Your task to perform on an android device: set the stopwatch Image 0: 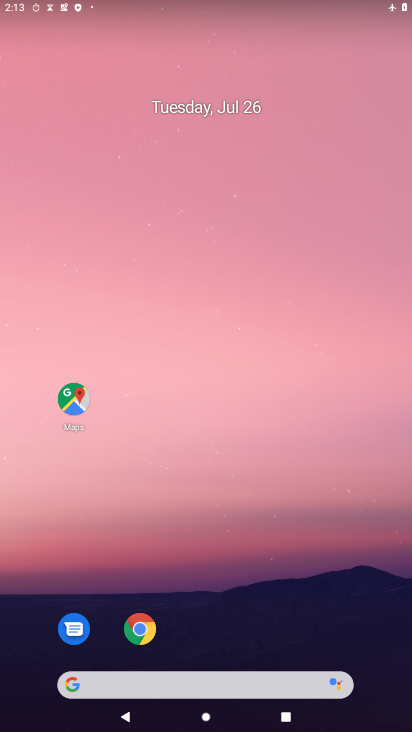
Step 0: drag from (174, 684) to (261, 70)
Your task to perform on an android device: set the stopwatch Image 1: 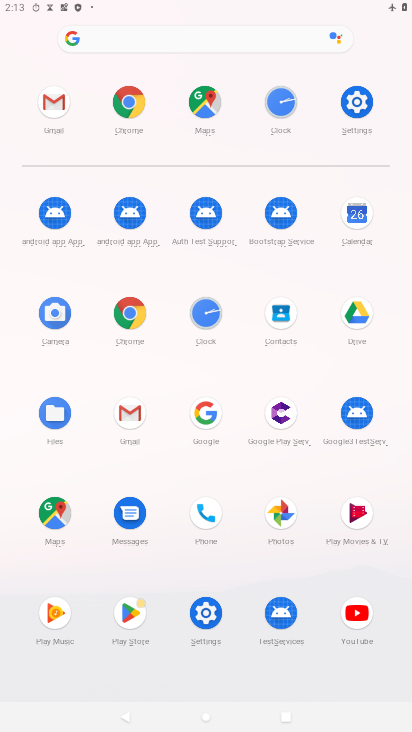
Step 1: click (215, 306)
Your task to perform on an android device: set the stopwatch Image 2: 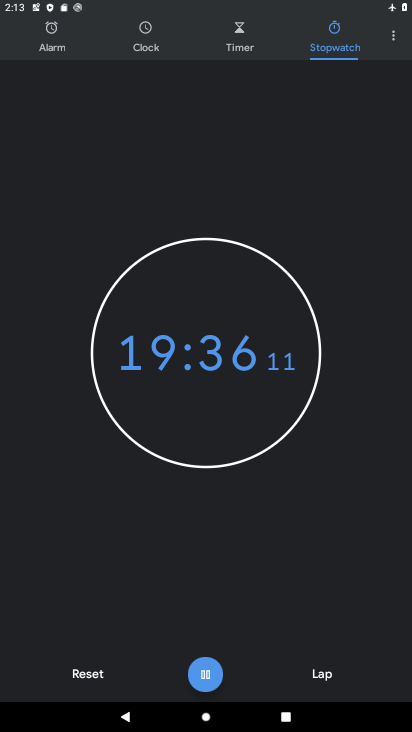
Step 2: task complete